Your task to perform on an android device: empty trash in google photos Image 0: 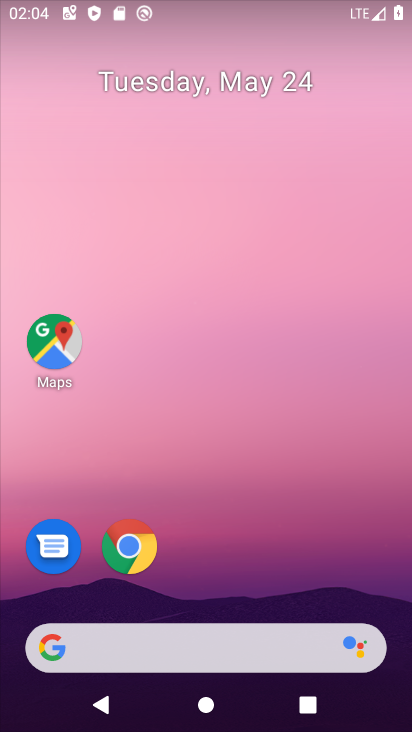
Step 0: drag from (212, 606) to (262, 67)
Your task to perform on an android device: empty trash in google photos Image 1: 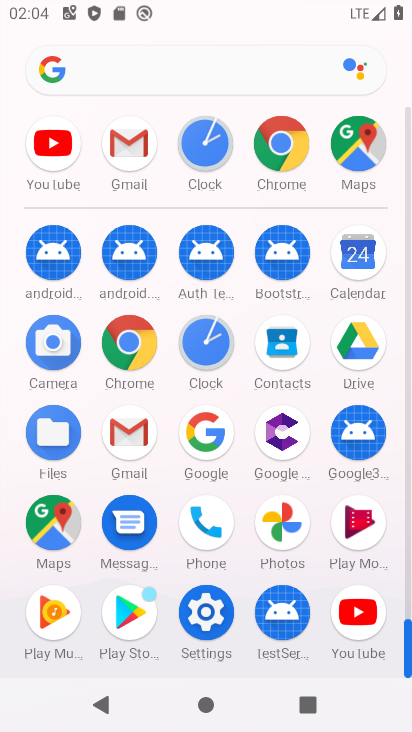
Step 1: click (284, 521)
Your task to perform on an android device: empty trash in google photos Image 2: 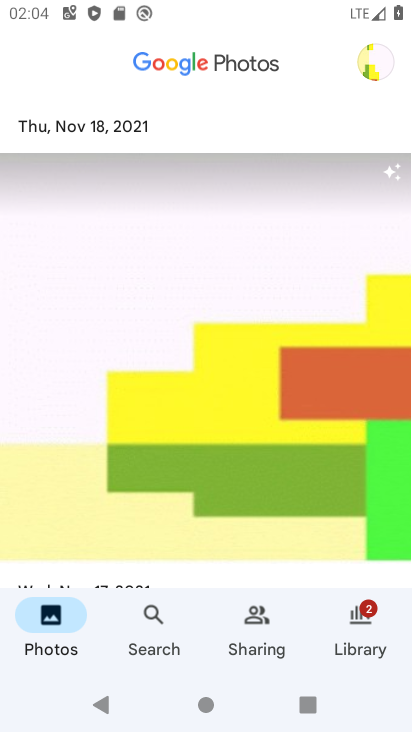
Step 2: click (346, 603)
Your task to perform on an android device: empty trash in google photos Image 3: 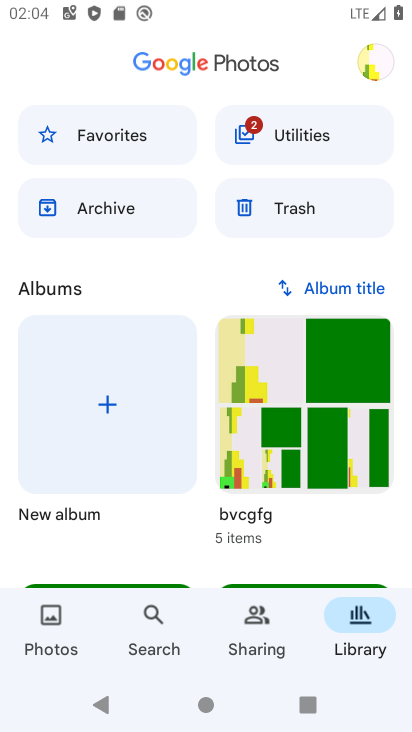
Step 3: click (307, 225)
Your task to perform on an android device: empty trash in google photos Image 4: 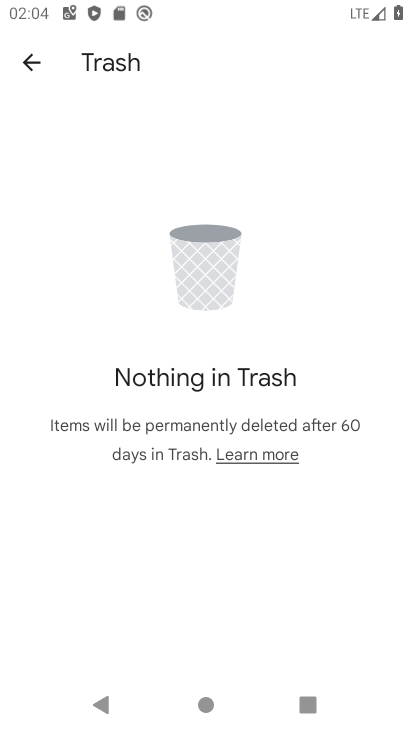
Step 4: task complete